Your task to perform on an android device: turn smart compose on in the gmail app Image 0: 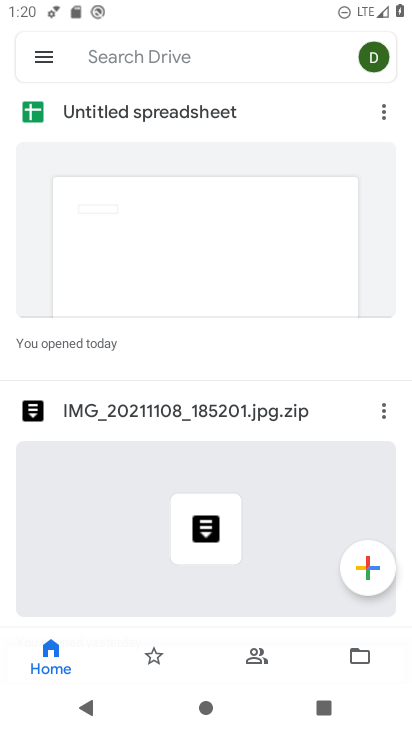
Step 0: click (38, 68)
Your task to perform on an android device: turn smart compose on in the gmail app Image 1: 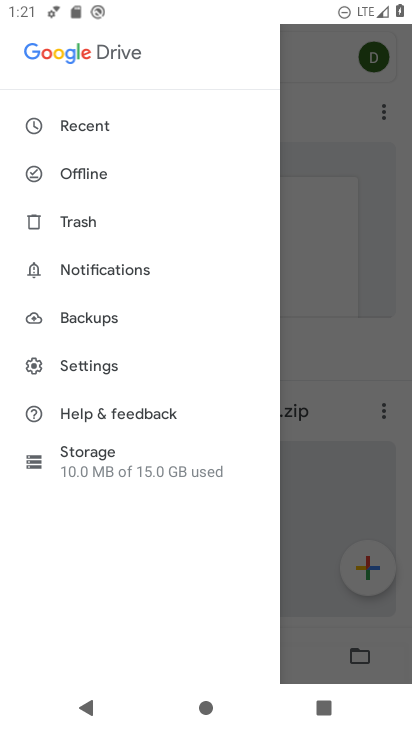
Step 1: click (101, 368)
Your task to perform on an android device: turn smart compose on in the gmail app Image 2: 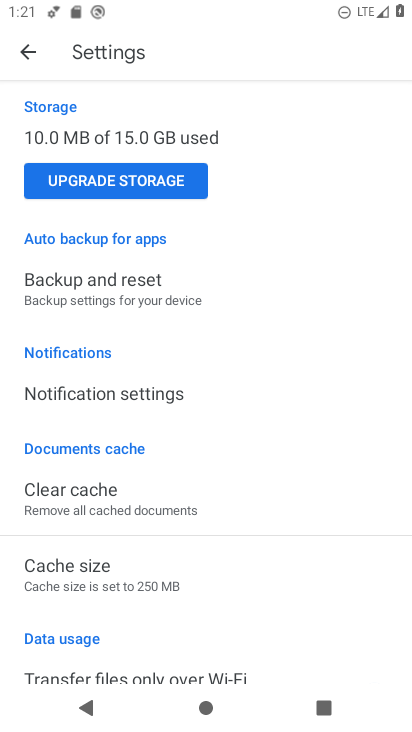
Step 2: click (32, 48)
Your task to perform on an android device: turn smart compose on in the gmail app Image 3: 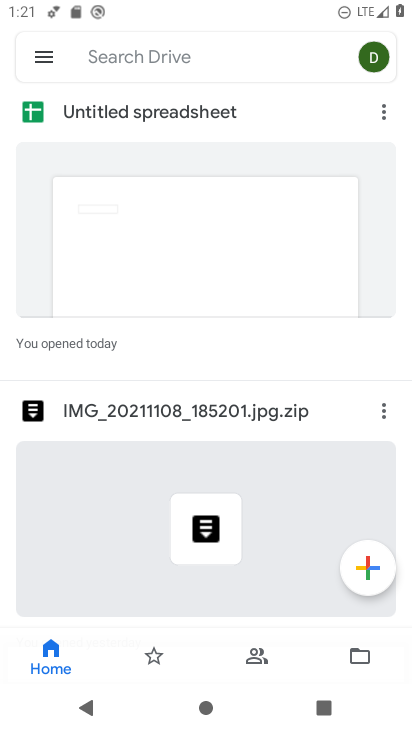
Step 3: click (32, 48)
Your task to perform on an android device: turn smart compose on in the gmail app Image 4: 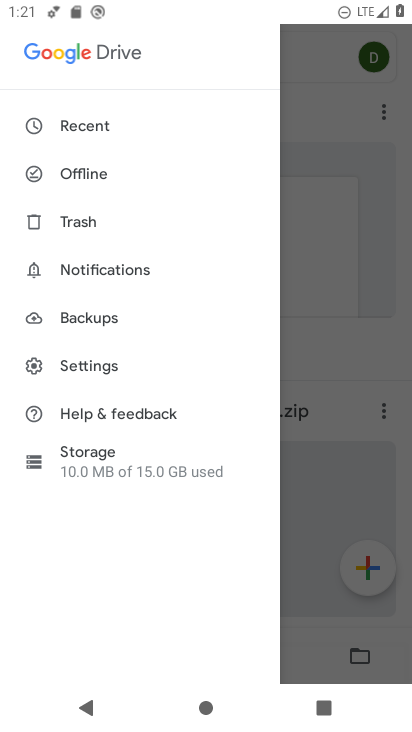
Step 4: click (102, 374)
Your task to perform on an android device: turn smart compose on in the gmail app Image 5: 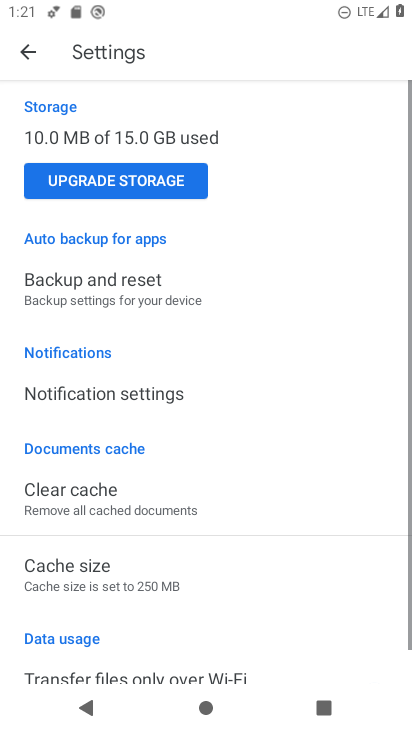
Step 5: drag from (163, 578) to (196, 150)
Your task to perform on an android device: turn smart compose on in the gmail app Image 6: 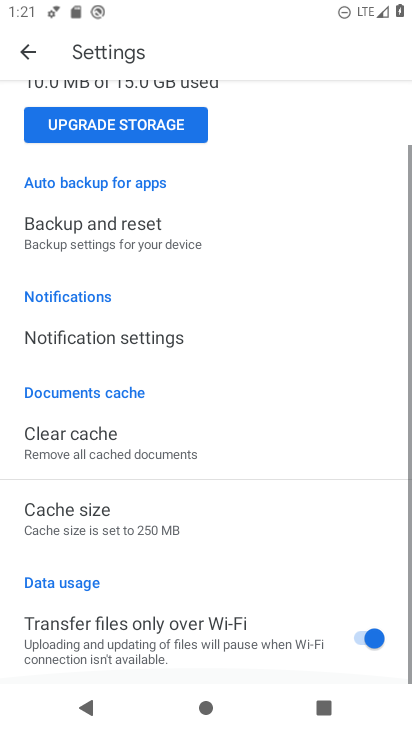
Step 6: drag from (173, 503) to (209, 167)
Your task to perform on an android device: turn smart compose on in the gmail app Image 7: 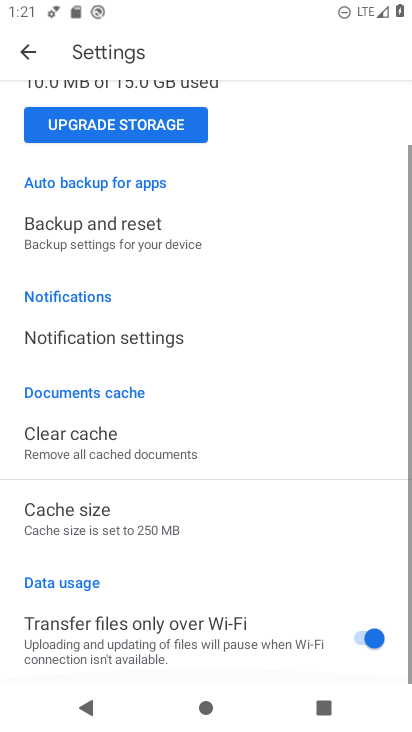
Step 7: drag from (169, 517) to (208, 227)
Your task to perform on an android device: turn smart compose on in the gmail app Image 8: 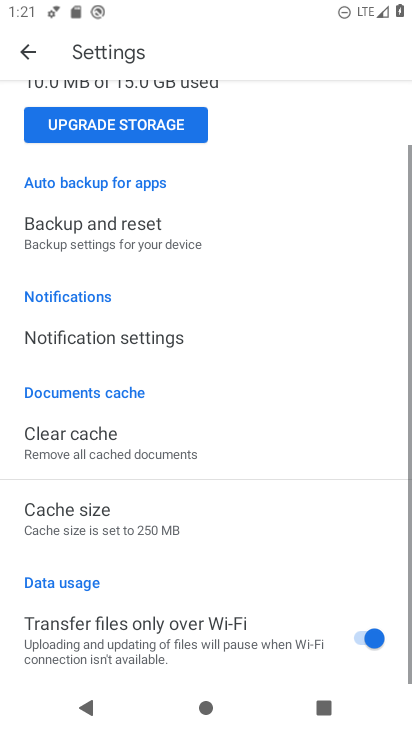
Step 8: click (11, 44)
Your task to perform on an android device: turn smart compose on in the gmail app Image 9: 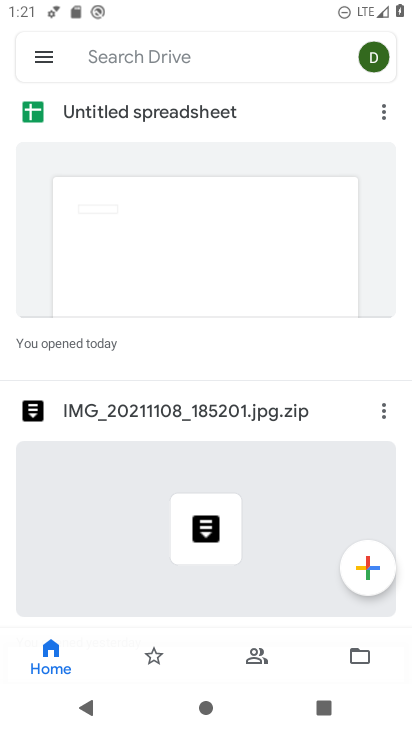
Step 9: press home button
Your task to perform on an android device: turn smart compose on in the gmail app Image 10: 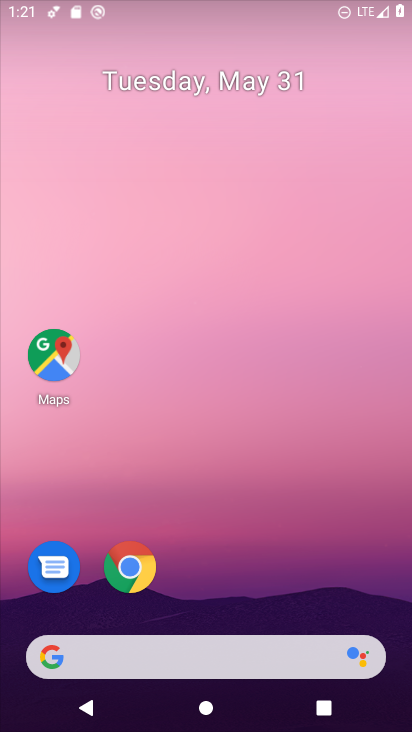
Step 10: drag from (210, 573) to (244, 101)
Your task to perform on an android device: turn smart compose on in the gmail app Image 11: 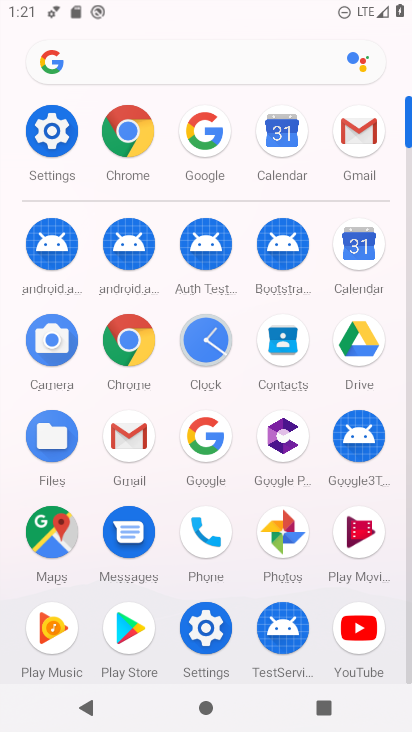
Step 11: click (344, 131)
Your task to perform on an android device: turn smart compose on in the gmail app Image 12: 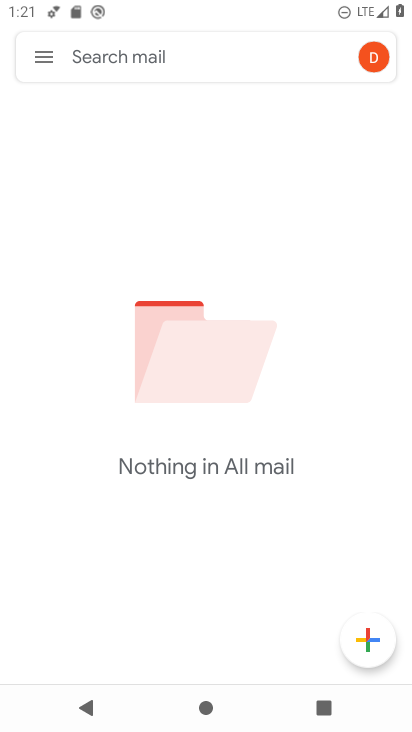
Step 12: click (42, 66)
Your task to perform on an android device: turn smart compose on in the gmail app Image 13: 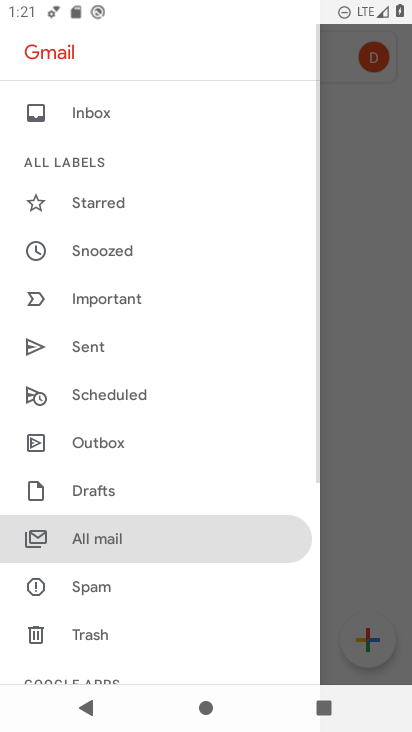
Step 13: drag from (114, 599) to (121, 377)
Your task to perform on an android device: turn smart compose on in the gmail app Image 14: 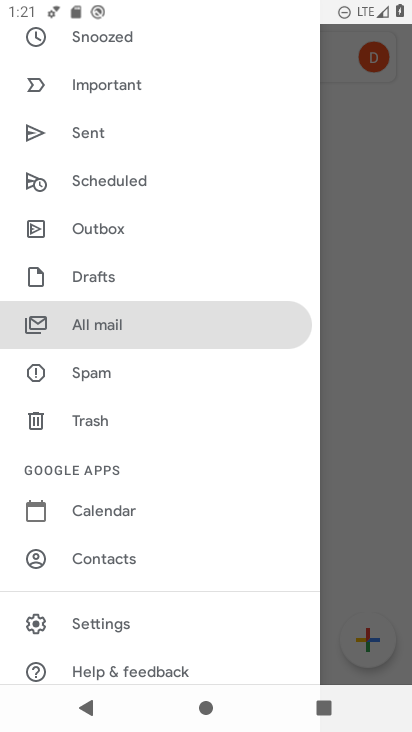
Step 14: click (98, 598)
Your task to perform on an android device: turn smart compose on in the gmail app Image 15: 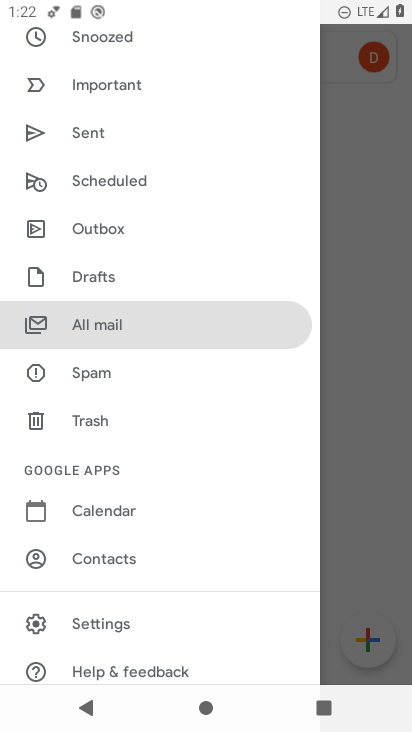
Step 15: click (83, 616)
Your task to perform on an android device: turn smart compose on in the gmail app Image 16: 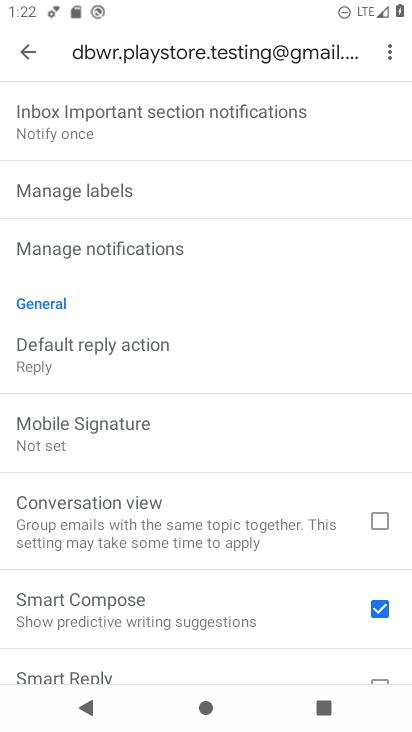
Step 16: task complete